Your task to perform on an android device: change the clock style Image 0: 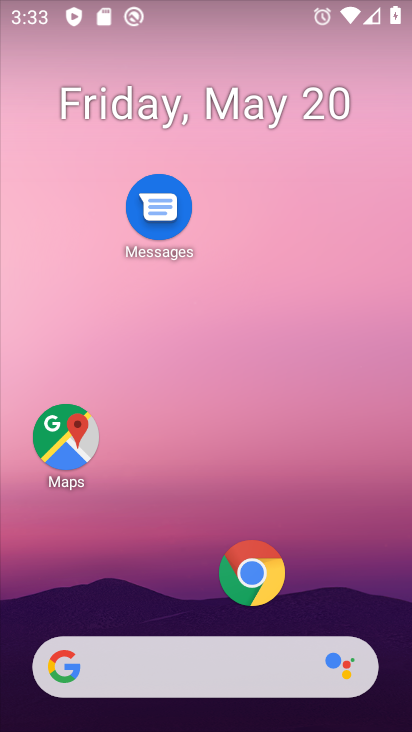
Step 0: drag from (192, 601) to (120, 12)
Your task to perform on an android device: change the clock style Image 1: 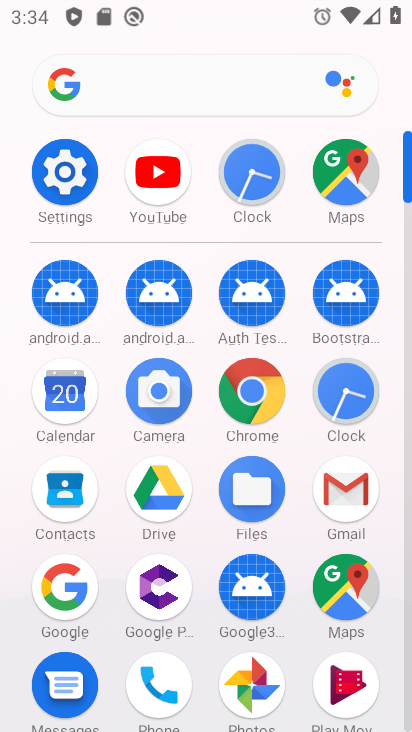
Step 1: click (337, 398)
Your task to perform on an android device: change the clock style Image 2: 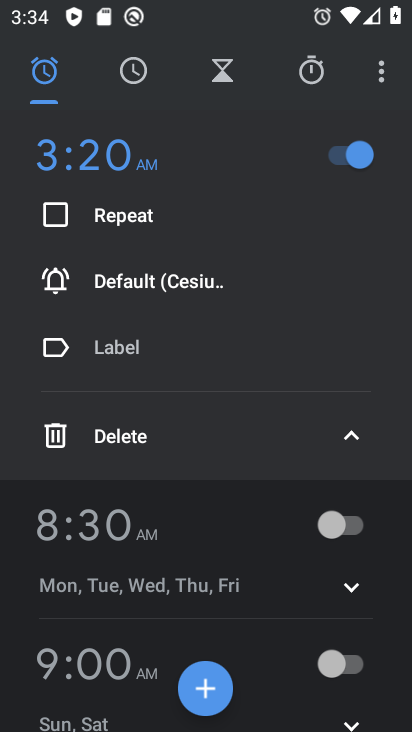
Step 2: click (376, 77)
Your task to perform on an android device: change the clock style Image 3: 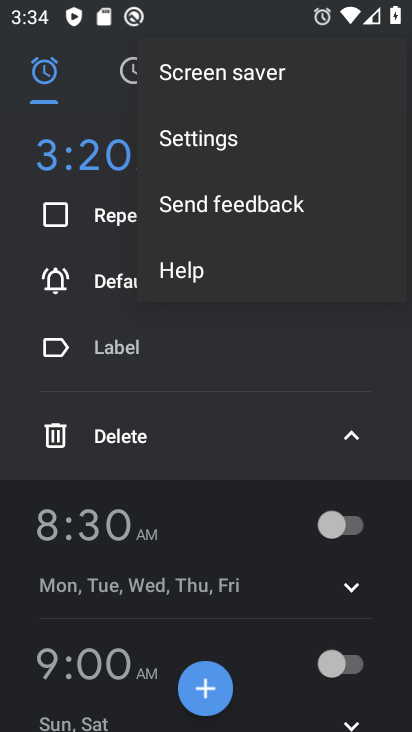
Step 3: click (216, 140)
Your task to perform on an android device: change the clock style Image 4: 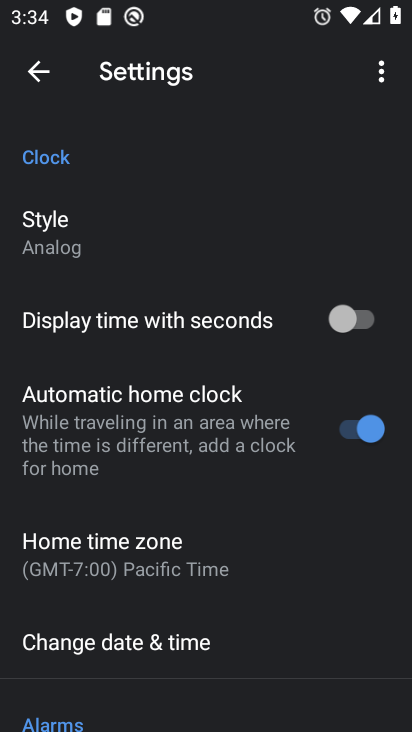
Step 4: click (98, 241)
Your task to perform on an android device: change the clock style Image 5: 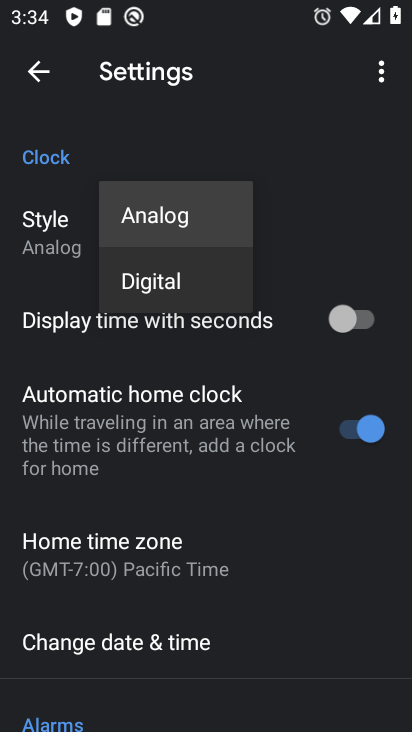
Step 5: click (172, 275)
Your task to perform on an android device: change the clock style Image 6: 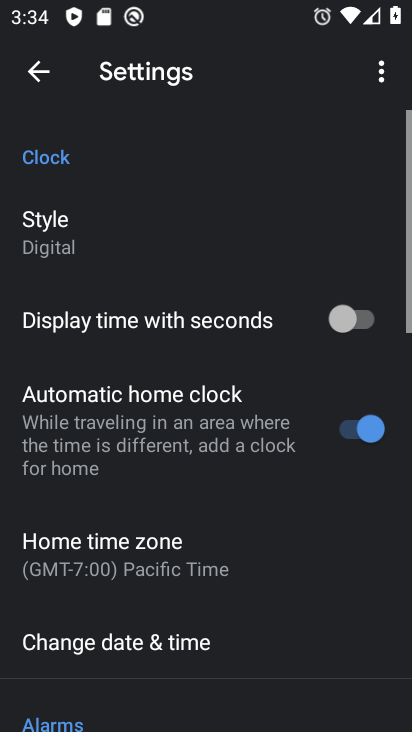
Step 6: task complete